Your task to perform on an android device: all mails in gmail Image 0: 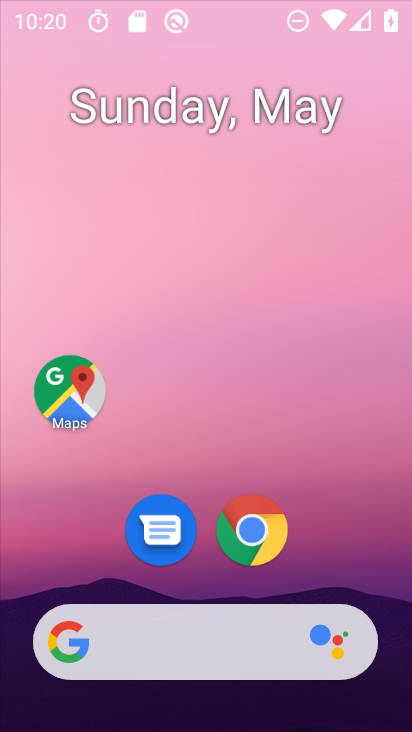
Step 0: press home button
Your task to perform on an android device: all mails in gmail Image 1: 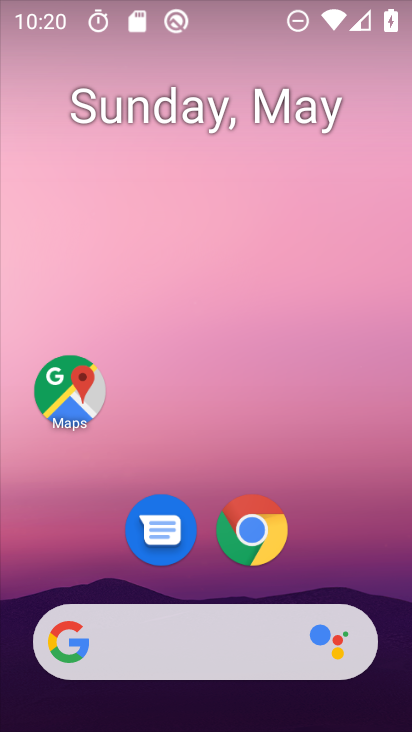
Step 1: drag from (267, 699) to (308, 23)
Your task to perform on an android device: all mails in gmail Image 2: 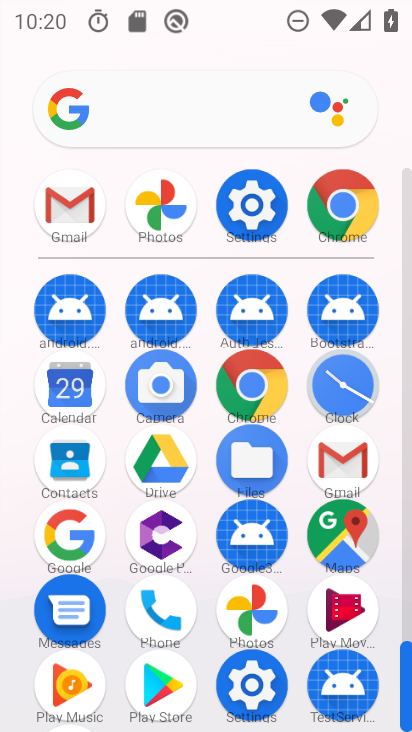
Step 2: click (81, 195)
Your task to perform on an android device: all mails in gmail Image 3: 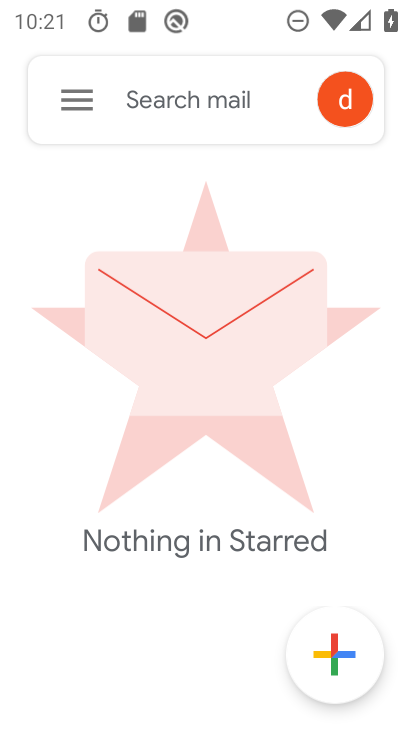
Step 3: click (43, 97)
Your task to perform on an android device: all mails in gmail Image 4: 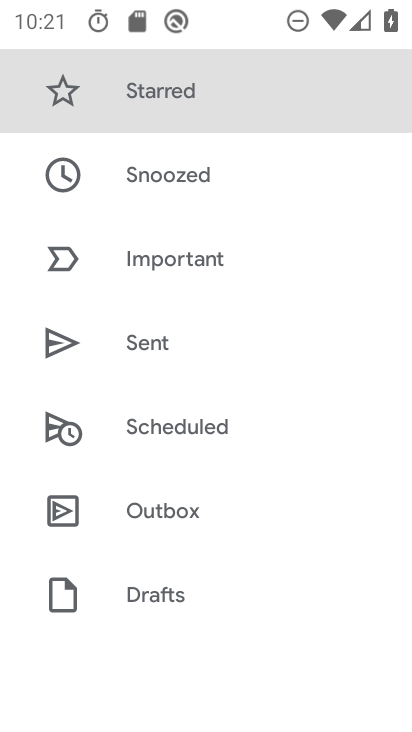
Step 4: drag from (173, 505) to (238, 214)
Your task to perform on an android device: all mails in gmail Image 5: 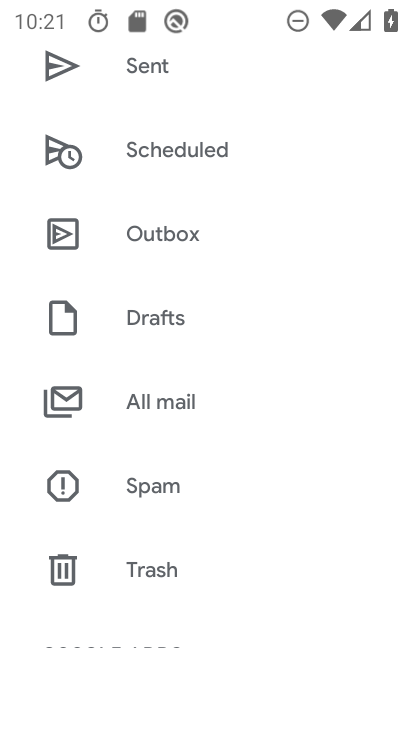
Step 5: click (143, 414)
Your task to perform on an android device: all mails in gmail Image 6: 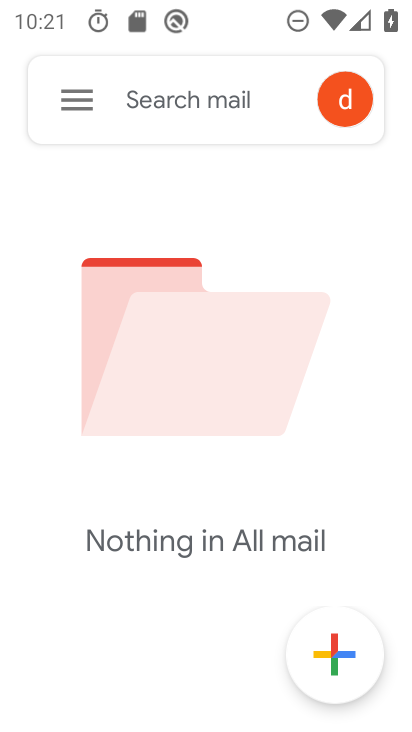
Step 6: task complete